Your task to perform on an android device: delete browsing data in the chrome app Image 0: 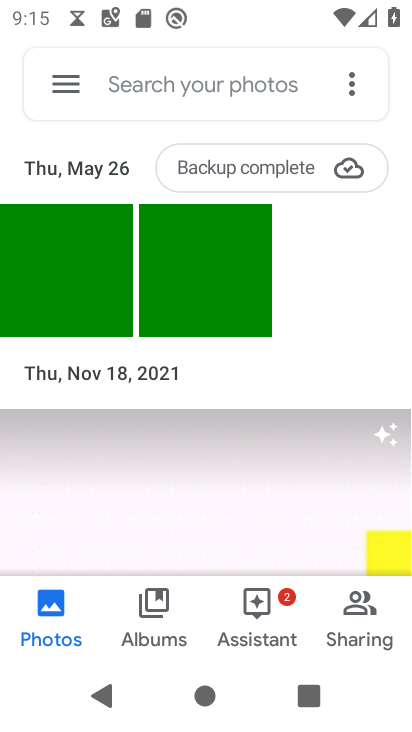
Step 0: press home button
Your task to perform on an android device: delete browsing data in the chrome app Image 1: 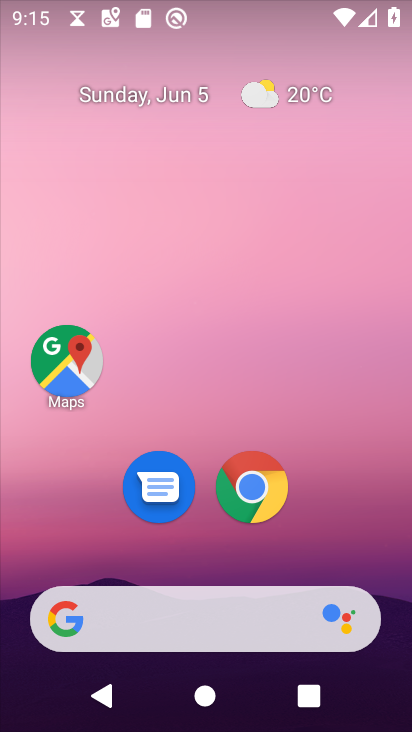
Step 1: click (249, 472)
Your task to perform on an android device: delete browsing data in the chrome app Image 2: 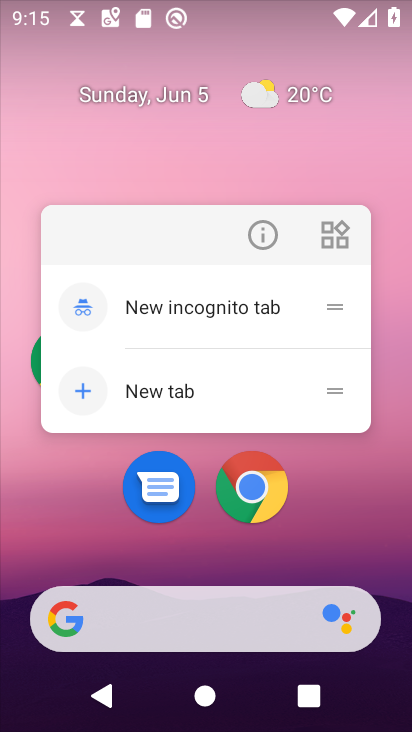
Step 2: click (264, 475)
Your task to perform on an android device: delete browsing data in the chrome app Image 3: 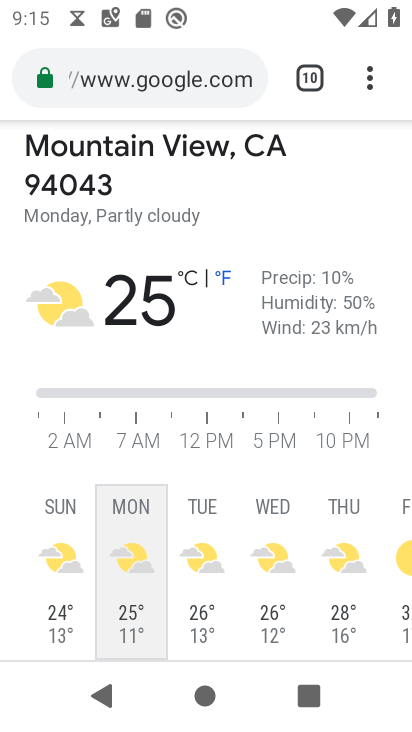
Step 3: click (366, 78)
Your task to perform on an android device: delete browsing data in the chrome app Image 4: 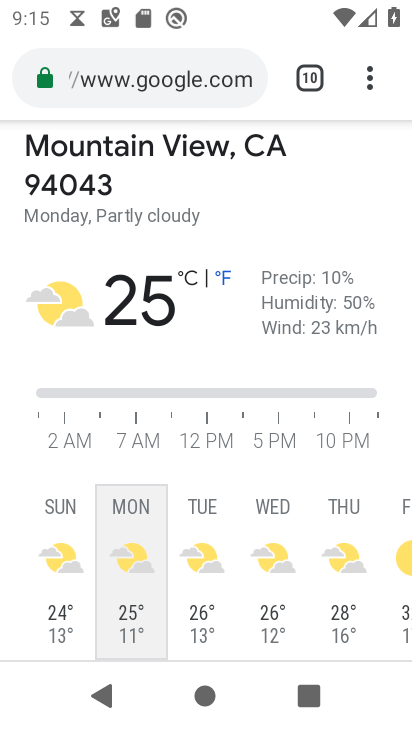
Step 4: click (378, 65)
Your task to perform on an android device: delete browsing data in the chrome app Image 5: 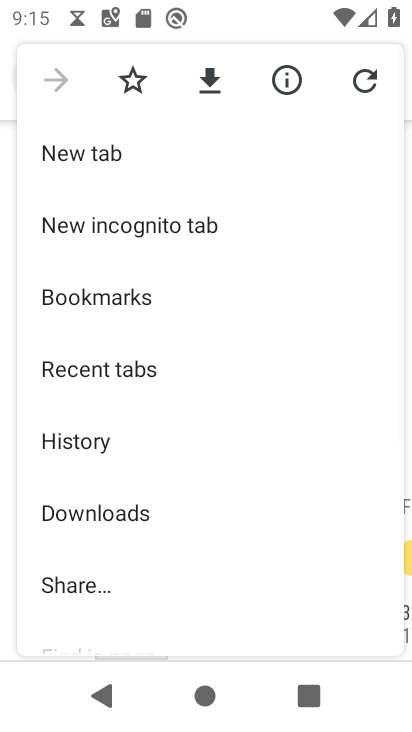
Step 5: drag from (122, 553) to (189, 212)
Your task to perform on an android device: delete browsing data in the chrome app Image 6: 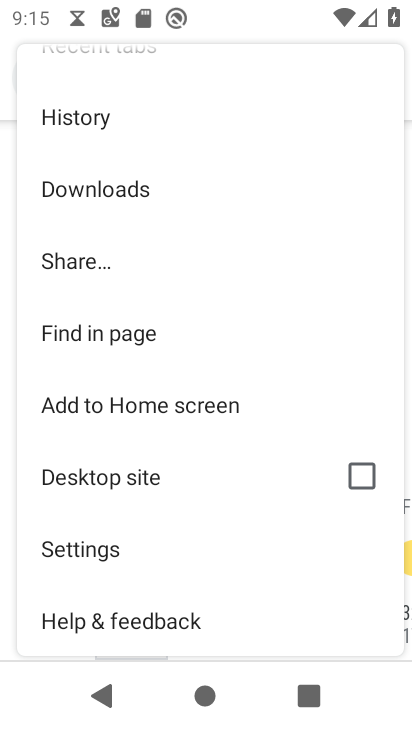
Step 6: click (101, 562)
Your task to perform on an android device: delete browsing data in the chrome app Image 7: 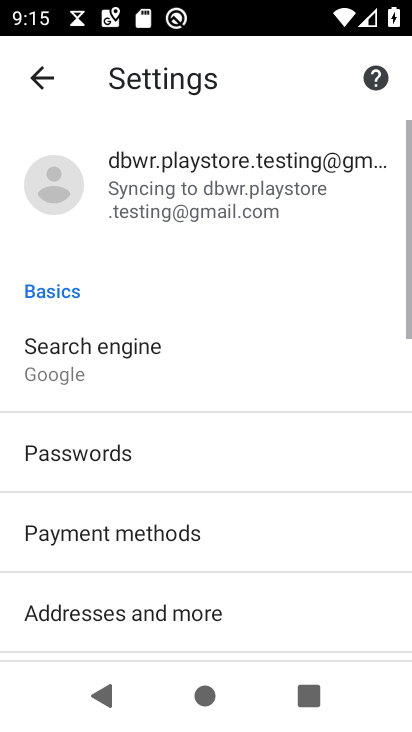
Step 7: drag from (143, 624) to (196, 232)
Your task to perform on an android device: delete browsing data in the chrome app Image 8: 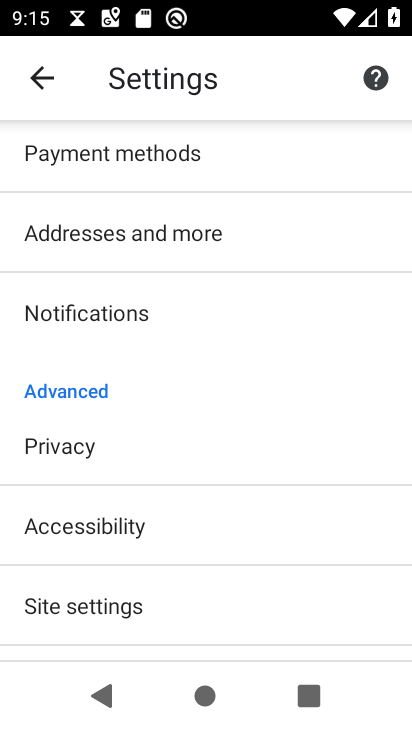
Step 8: click (155, 439)
Your task to perform on an android device: delete browsing data in the chrome app Image 9: 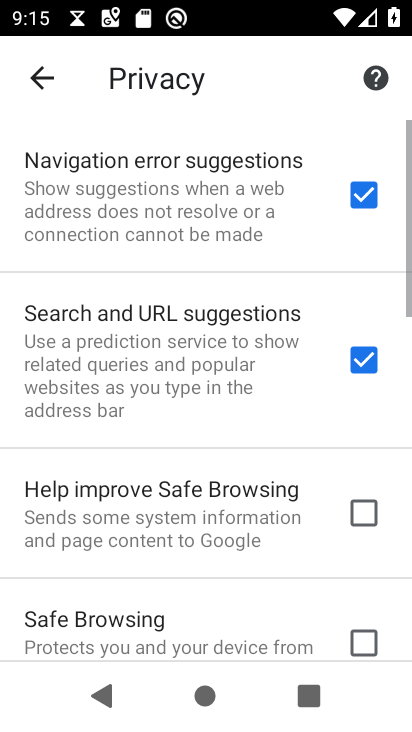
Step 9: drag from (160, 581) to (262, 130)
Your task to perform on an android device: delete browsing data in the chrome app Image 10: 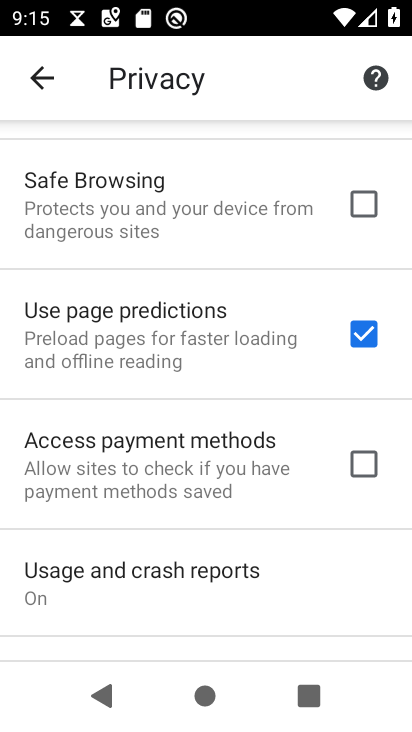
Step 10: drag from (173, 593) to (221, 262)
Your task to perform on an android device: delete browsing data in the chrome app Image 11: 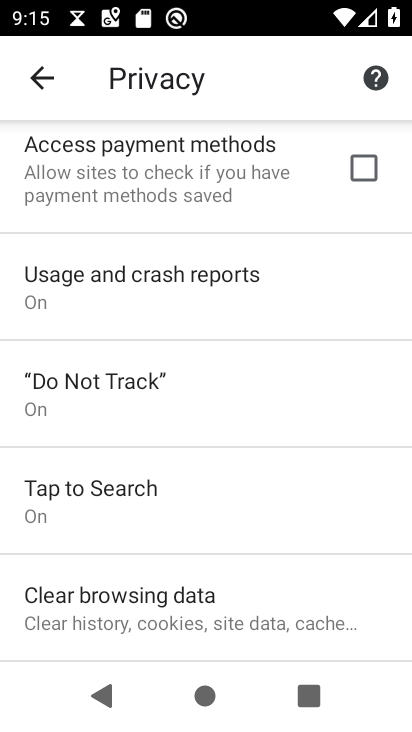
Step 11: click (181, 599)
Your task to perform on an android device: delete browsing data in the chrome app Image 12: 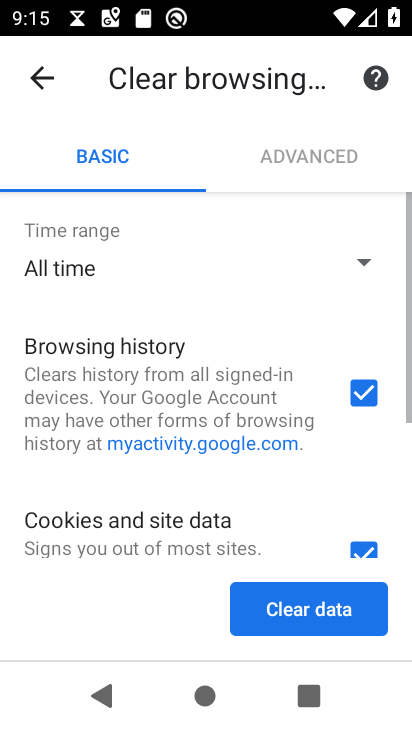
Step 12: click (319, 609)
Your task to perform on an android device: delete browsing data in the chrome app Image 13: 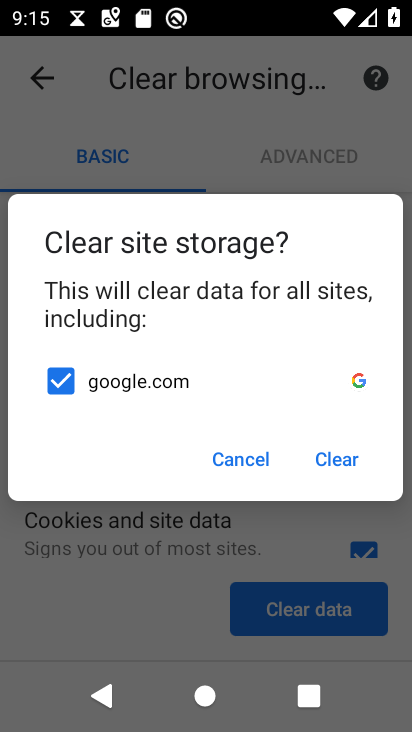
Step 13: click (341, 439)
Your task to perform on an android device: delete browsing data in the chrome app Image 14: 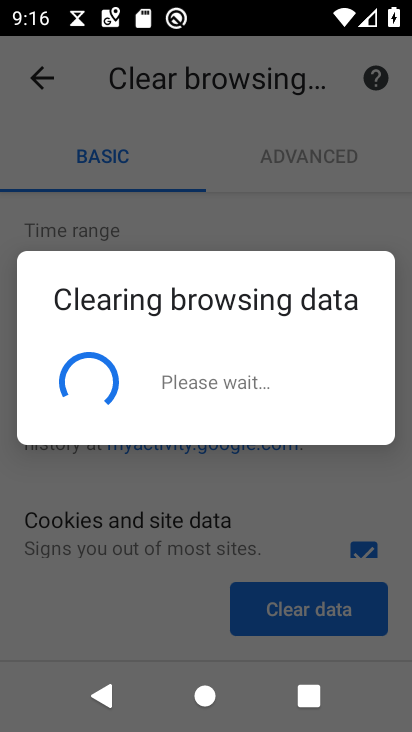
Step 14: task complete